Your task to perform on an android device: Open Youtube and go to the subscriptions tab Image 0: 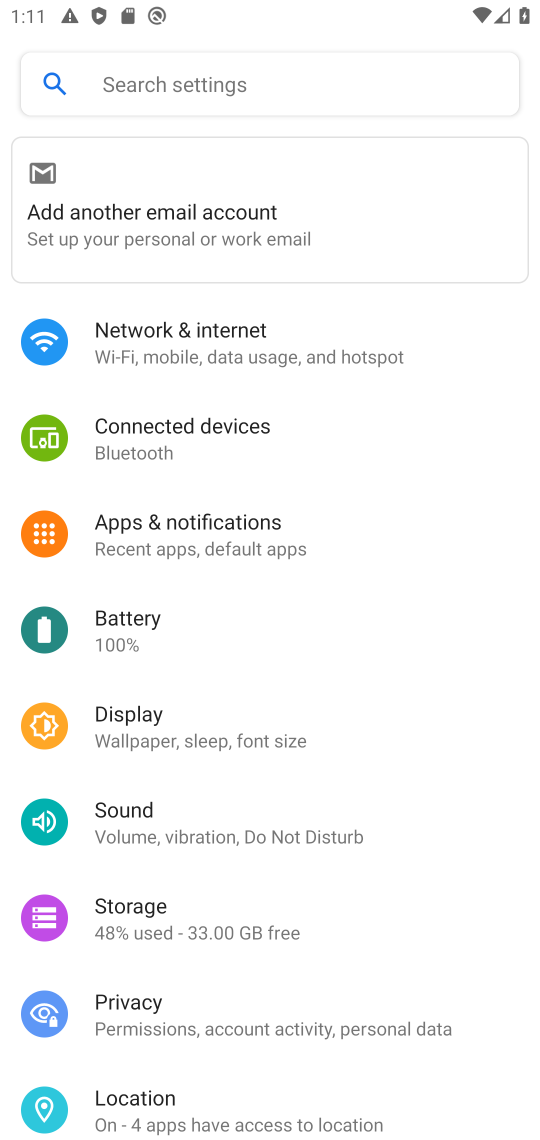
Step 0: press home button
Your task to perform on an android device: Open Youtube and go to the subscriptions tab Image 1: 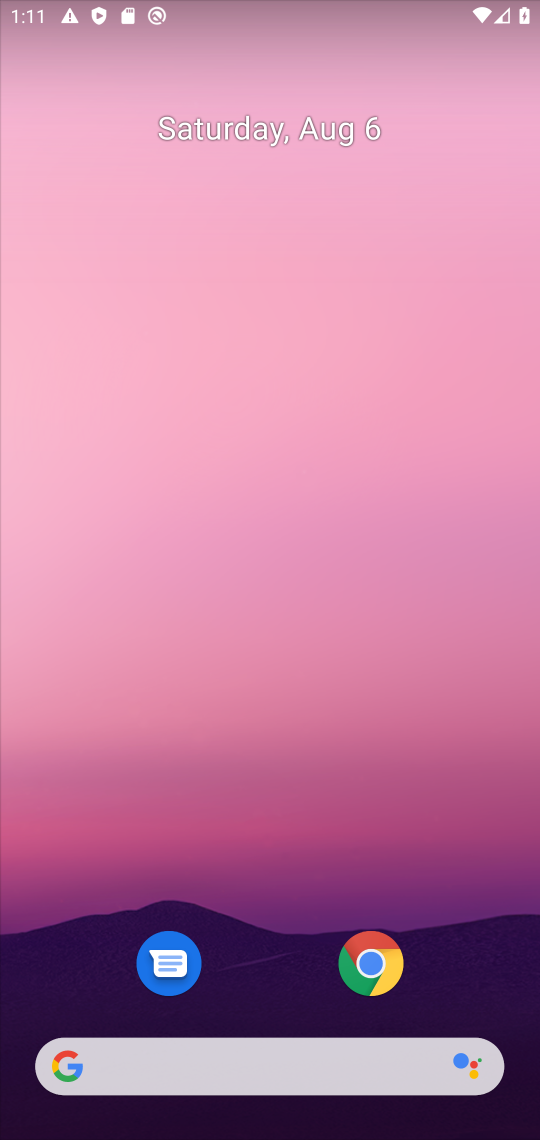
Step 1: drag from (238, 1133) to (375, 62)
Your task to perform on an android device: Open Youtube and go to the subscriptions tab Image 2: 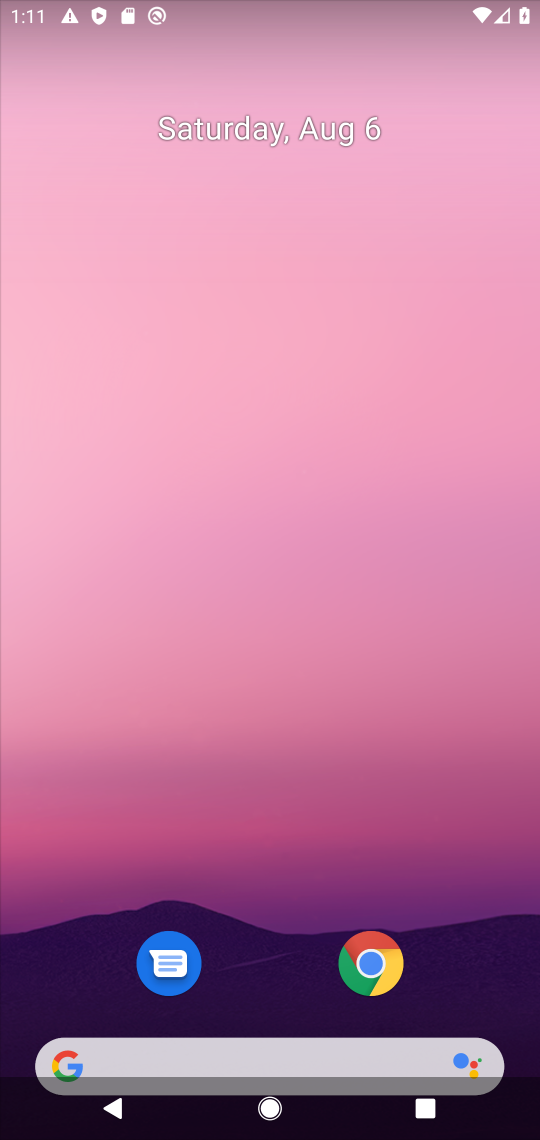
Step 2: drag from (317, 1108) to (431, 257)
Your task to perform on an android device: Open Youtube and go to the subscriptions tab Image 3: 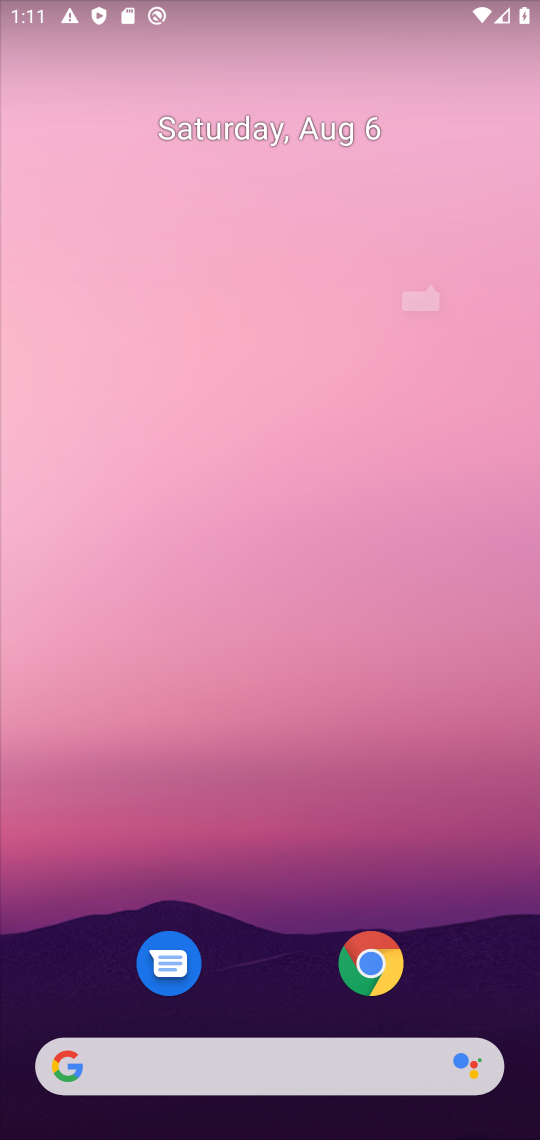
Step 3: drag from (179, 1108) to (302, 381)
Your task to perform on an android device: Open Youtube and go to the subscriptions tab Image 4: 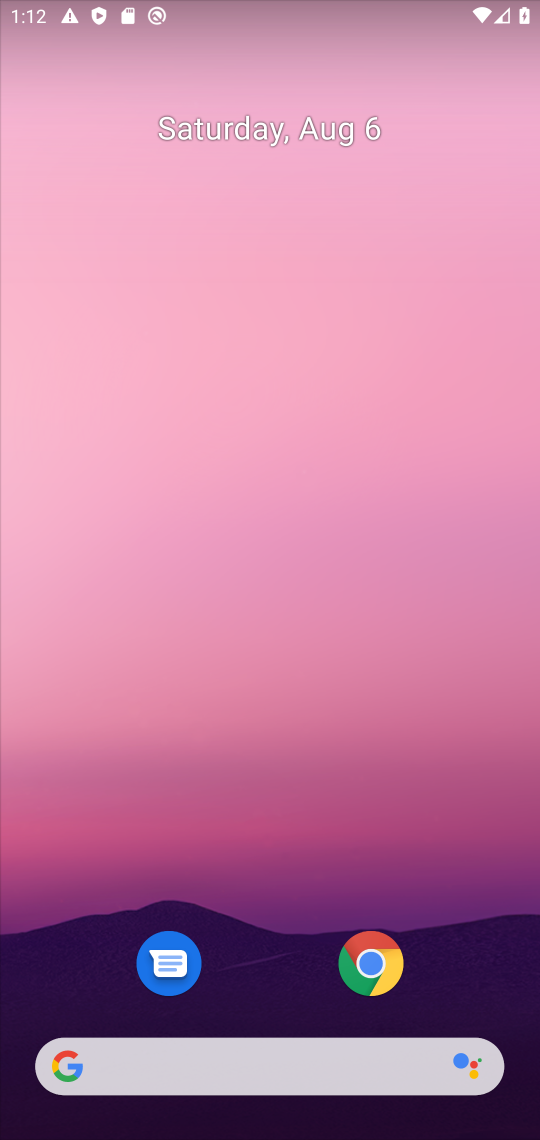
Step 4: drag from (227, 977) to (362, 444)
Your task to perform on an android device: Open Youtube and go to the subscriptions tab Image 5: 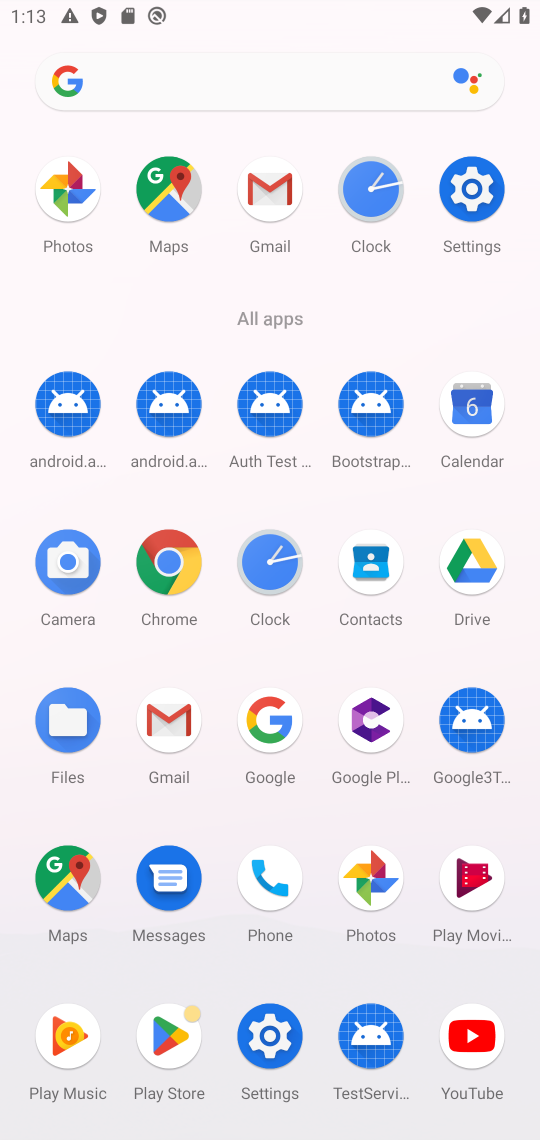
Step 5: click (471, 1059)
Your task to perform on an android device: Open Youtube and go to the subscriptions tab Image 6: 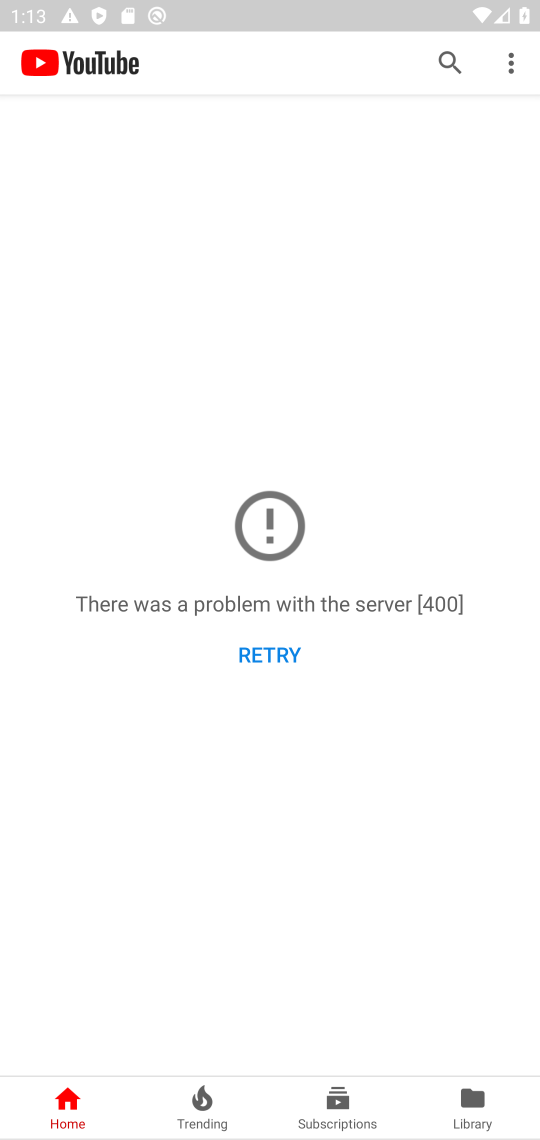
Step 6: click (339, 1095)
Your task to perform on an android device: Open Youtube and go to the subscriptions tab Image 7: 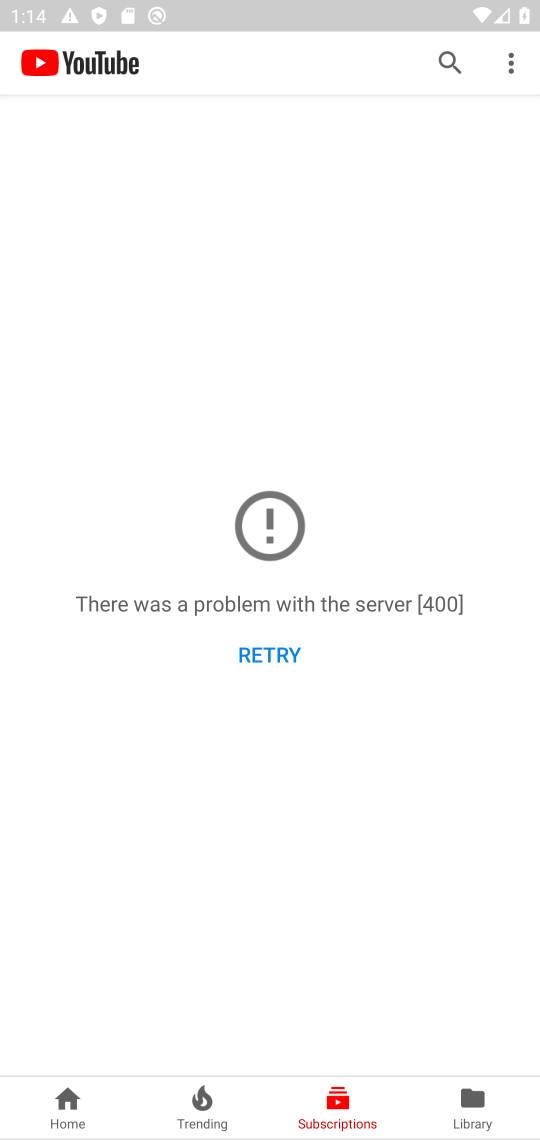
Step 7: task complete